Your task to perform on an android device: Open privacy settings Image 0: 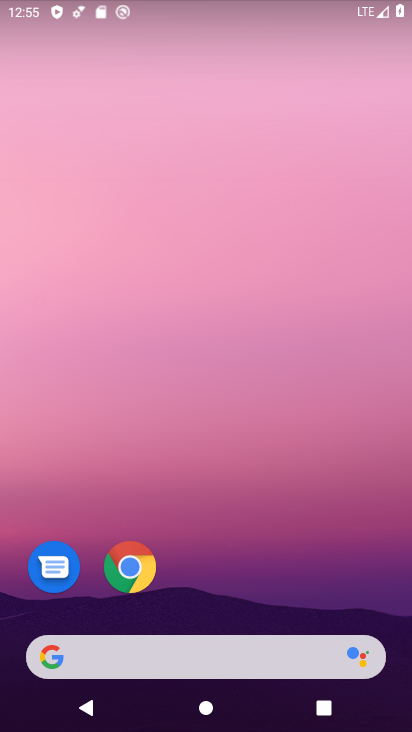
Step 0: drag from (214, 588) to (211, 204)
Your task to perform on an android device: Open privacy settings Image 1: 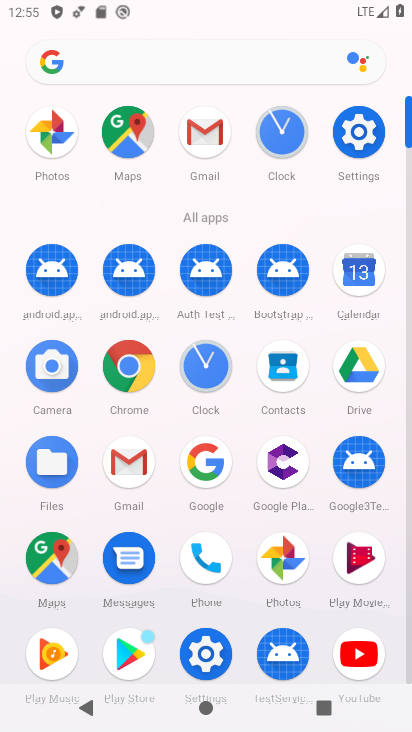
Step 1: click (351, 123)
Your task to perform on an android device: Open privacy settings Image 2: 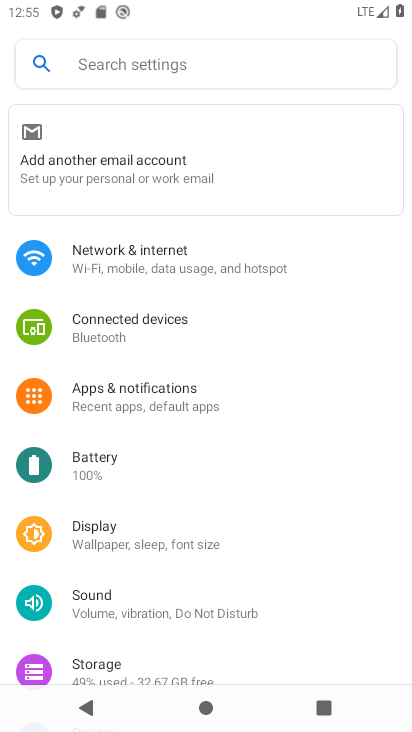
Step 2: drag from (145, 638) to (185, 192)
Your task to perform on an android device: Open privacy settings Image 3: 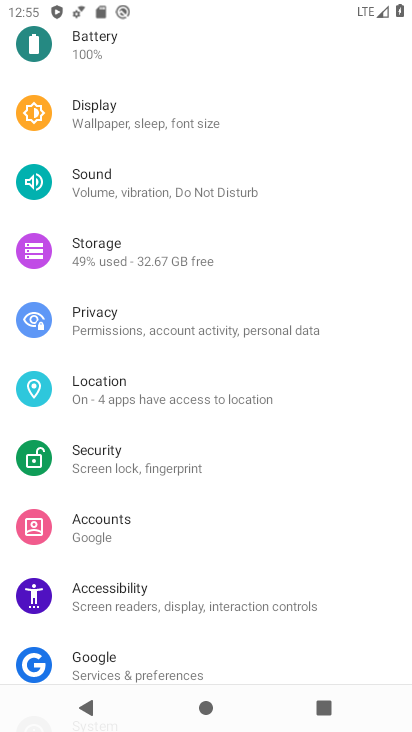
Step 3: click (129, 317)
Your task to perform on an android device: Open privacy settings Image 4: 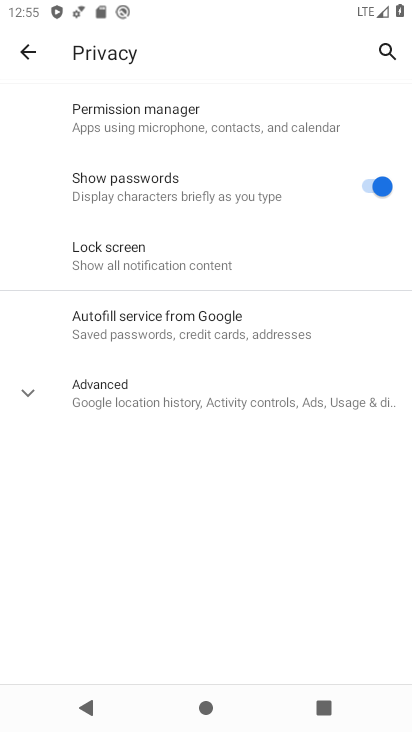
Step 4: click (23, 400)
Your task to perform on an android device: Open privacy settings Image 5: 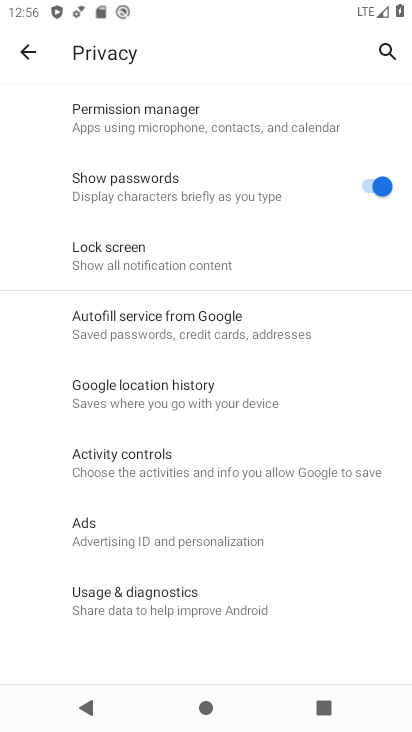
Step 5: task complete